Your task to perform on an android device: toggle data saver in the chrome app Image 0: 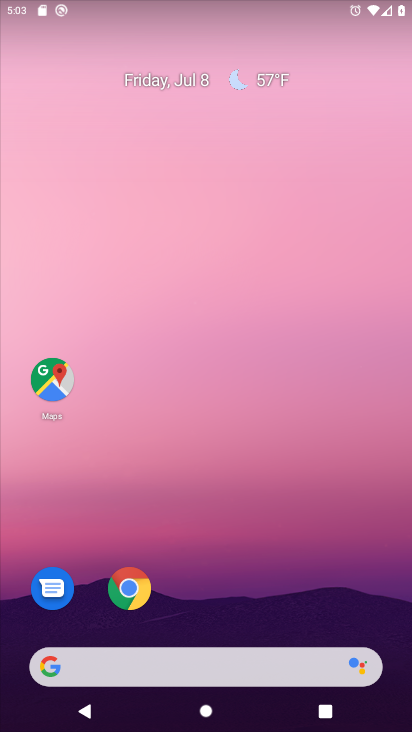
Step 0: drag from (166, 341) to (146, 186)
Your task to perform on an android device: toggle data saver in the chrome app Image 1: 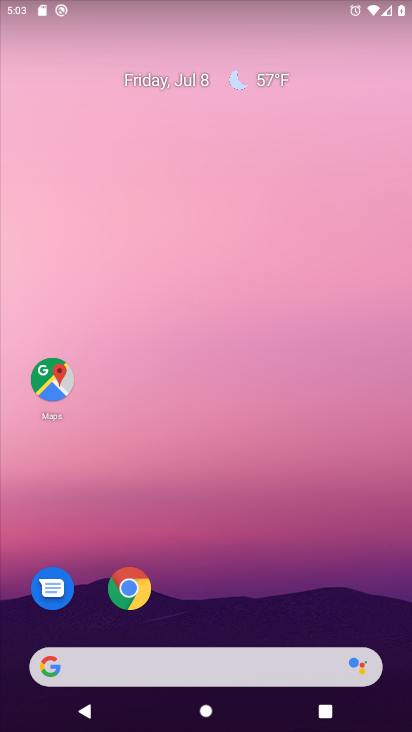
Step 1: drag from (253, 697) to (225, 87)
Your task to perform on an android device: toggle data saver in the chrome app Image 2: 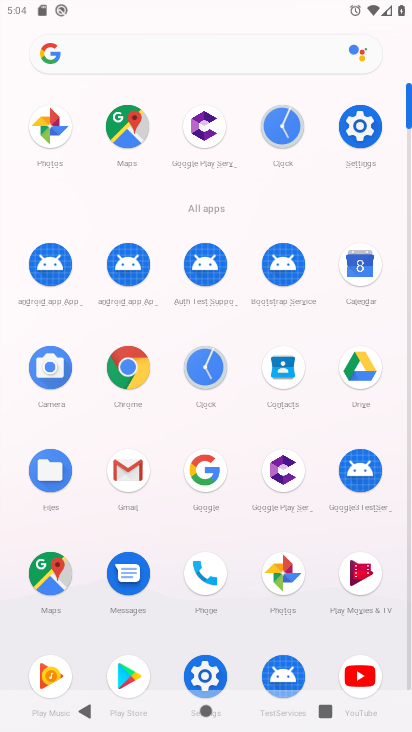
Step 2: click (121, 355)
Your task to perform on an android device: toggle data saver in the chrome app Image 3: 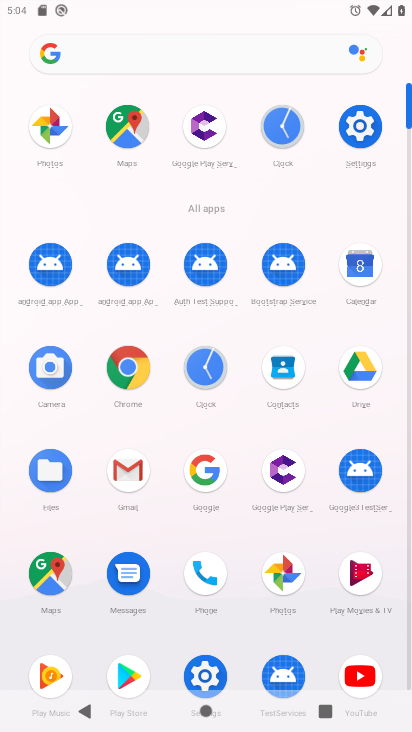
Step 3: click (136, 364)
Your task to perform on an android device: toggle data saver in the chrome app Image 4: 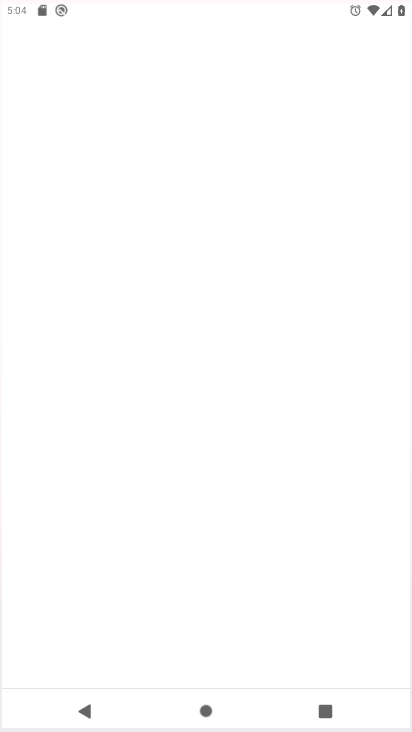
Step 4: click (135, 362)
Your task to perform on an android device: toggle data saver in the chrome app Image 5: 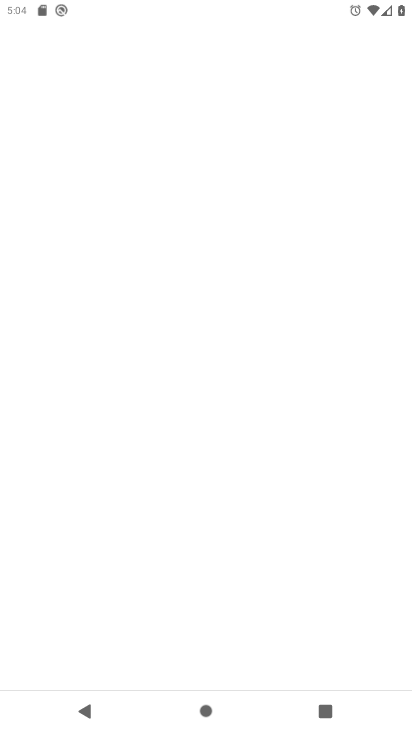
Step 5: click (138, 361)
Your task to perform on an android device: toggle data saver in the chrome app Image 6: 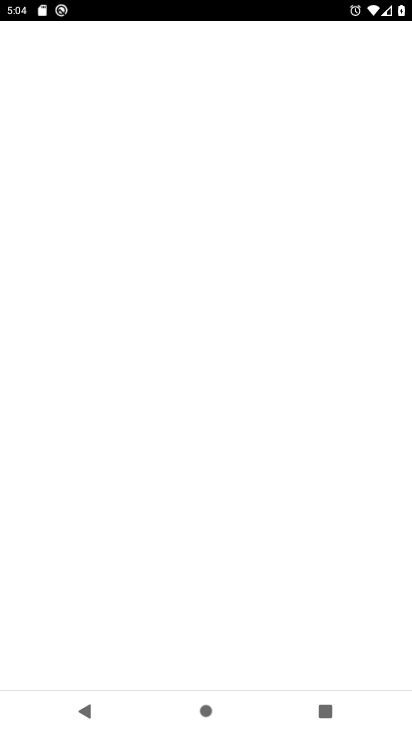
Step 6: click (138, 361)
Your task to perform on an android device: toggle data saver in the chrome app Image 7: 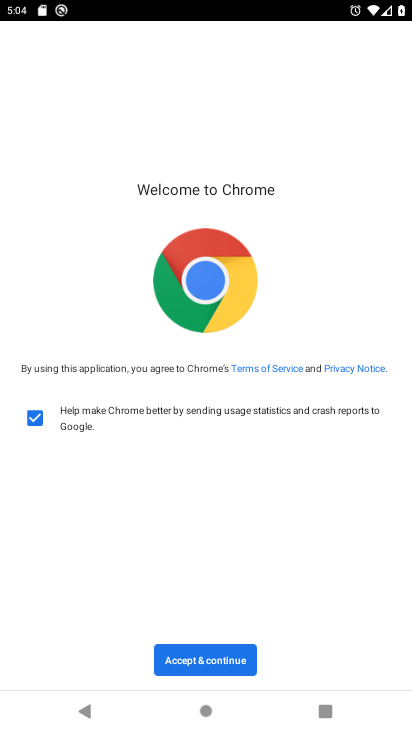
Step 7: click (202, 656)
Your task to perform on an android device: toggle data saver in the chrome app Image 8: 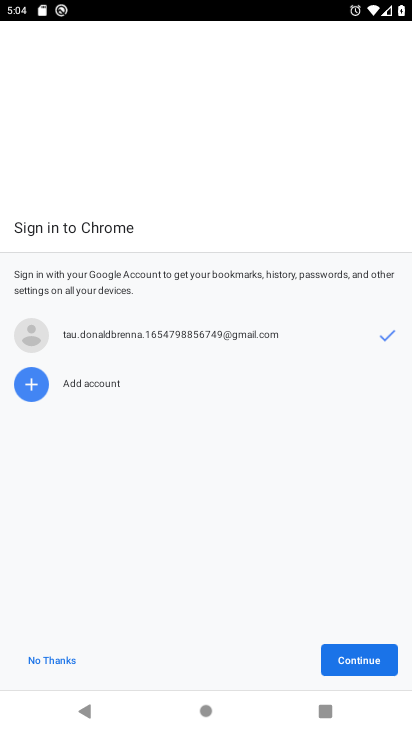
Step 8: click (202, 656)
Your task to perform on an android device: toggle data saver in the chrome app Image 9: 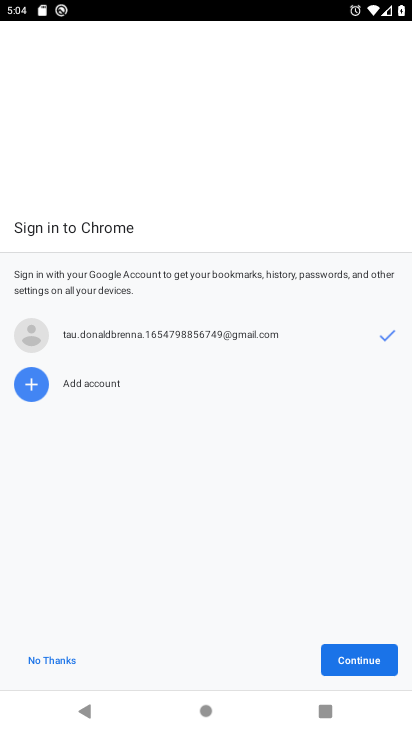
Step 9: click (364, 653)
Your task to perform on an android device: toggle data saver in the chrome app Image 10: 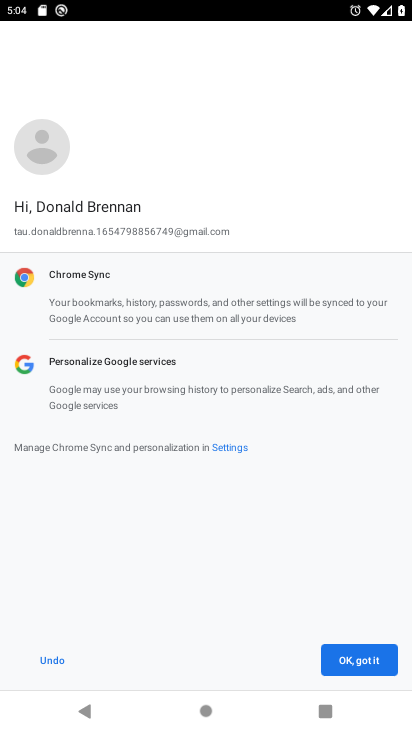
Step 10: click (368, 650)
Your task to perform on an android device: toggle data saver in the chrome app Image 11: 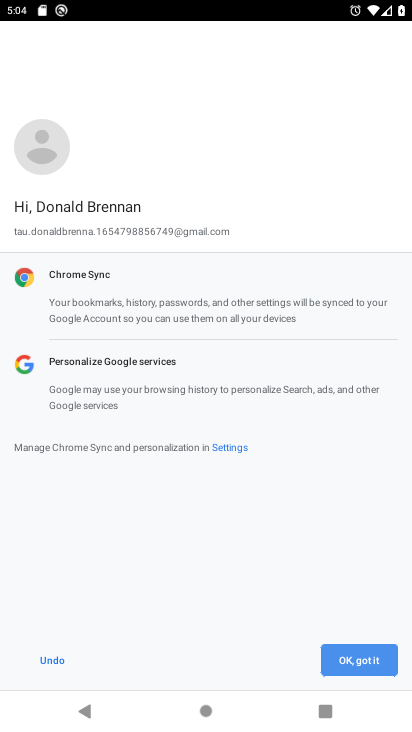
Step 11: click (367, 650)
Your task to perform on an android device: toggle data saver in the chrome app Image 12: 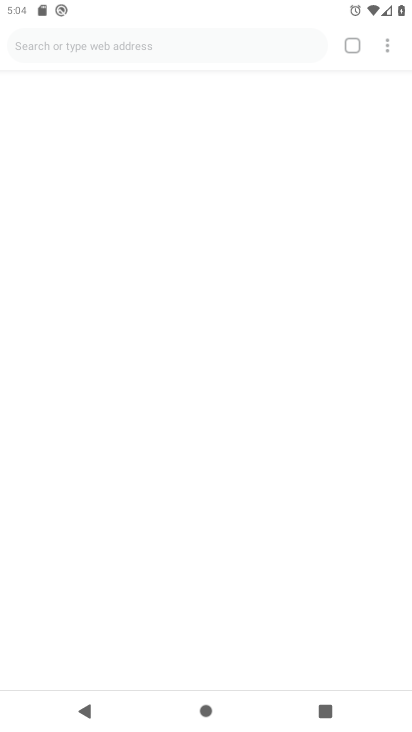
Step 12: click (368, 649)
Your task to perform on an android device: toggle data saver in the chrome app Image 13: 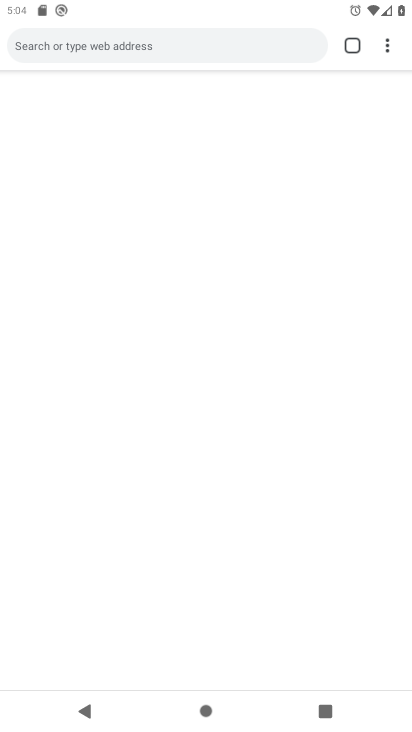
Step 13: click (368, 649)
Your task to perform on an android device: toggle data saver in the chrome app Image 14: 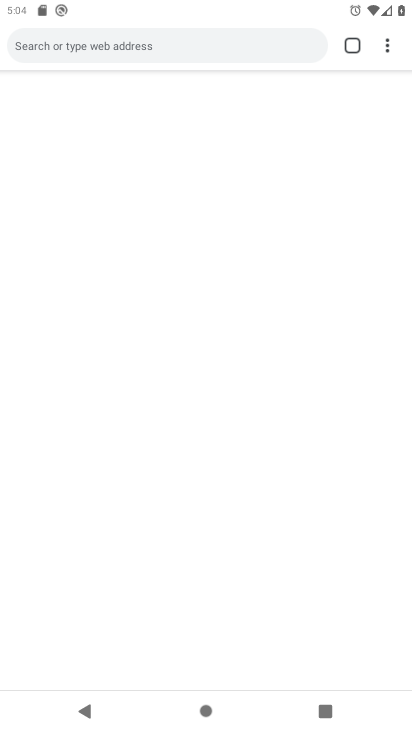
Step 14: click (368, 649)
Your task to perform on an android device: toggle data saver in the chrome app Image 15: 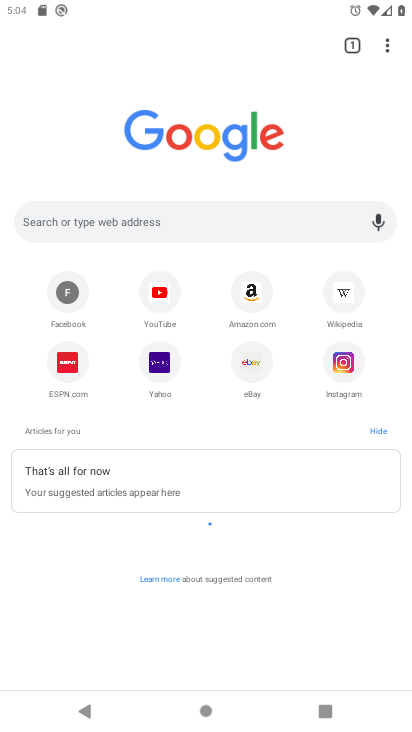
Step 15: click (390, 43)
Your task to perform on an android device: toggle data saver in the chrome app Image 16: 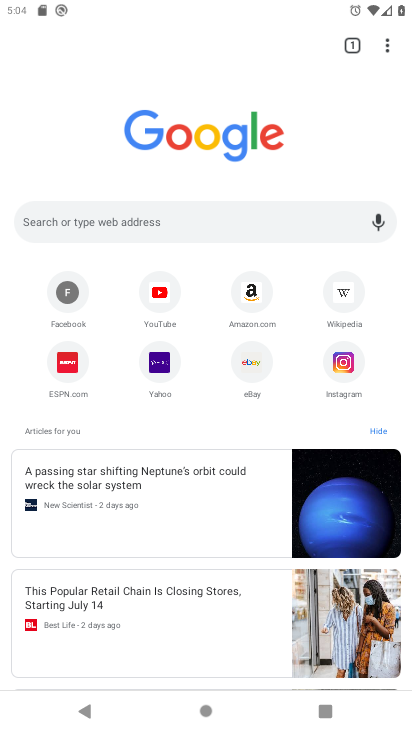
Step 16: click (389, 48)
Your task to perform on an android device: toggle data saver in the chrome app Image 17: 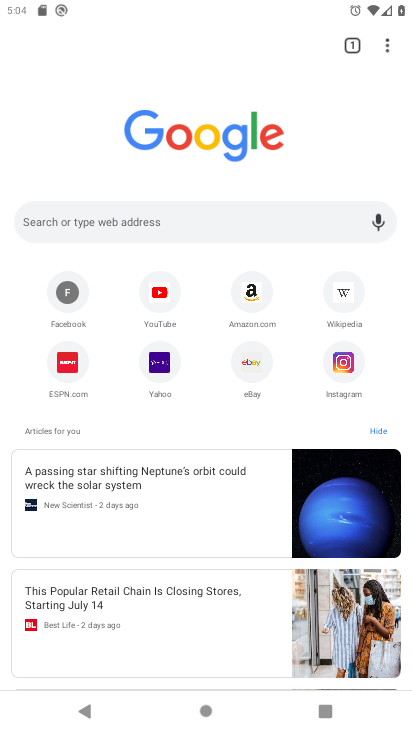
Step 17: click (389, 48)
Your task to perform on an android device: toggle data saver in the chrome app Image 18: 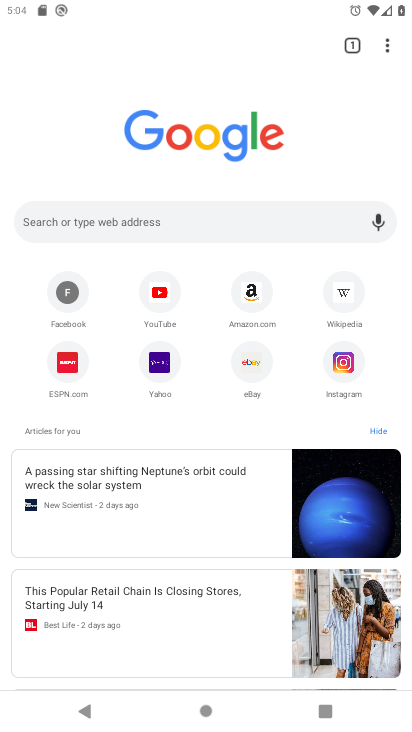
Step 18: click (389, 48)
Your task to perform on an android device: toggle data saver in the chrome app Image 19: 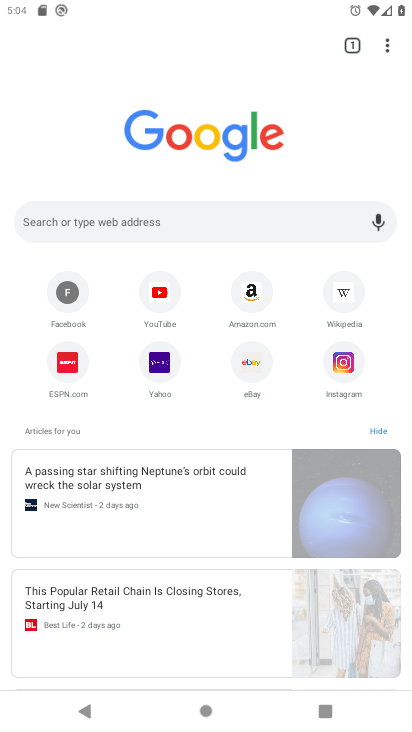
Step 19: click (389, 44)
Your task to perform on an android device: toggle data saver in the chrome app Image 20: 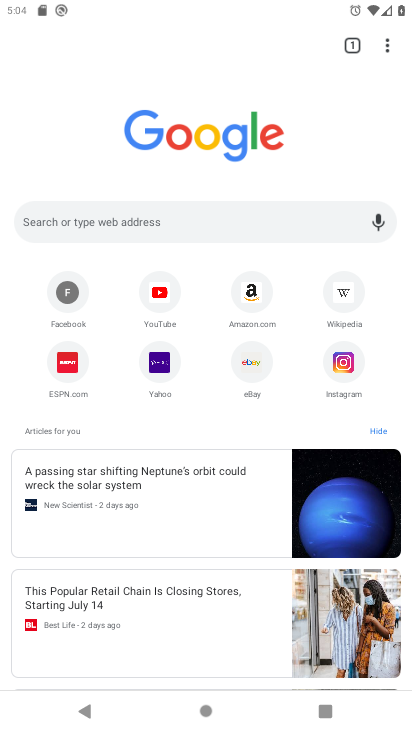
Step 20: click (389, 44)
Your task to perform on an android device: toggle data saver in the chrome app Image 21: 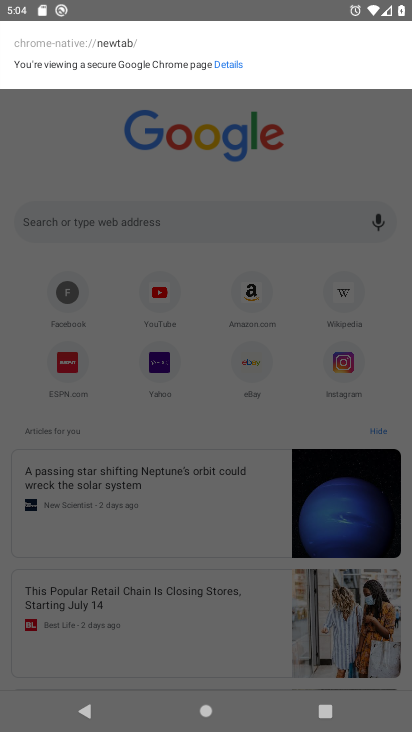
Step 21: drag from (389, 44) to (282, 589)
Your task to perform on an android device: toggle data saver in the chrome app Image 22: 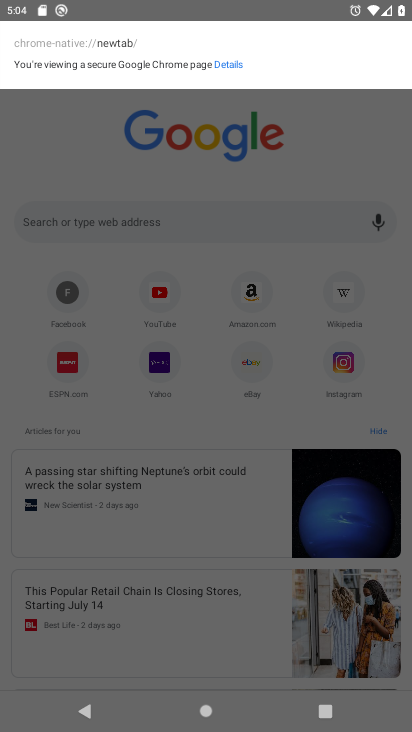
Step 22: click (347, 131)
Your task to perform on an android device: toggle data saver in the chrome app Image 23: 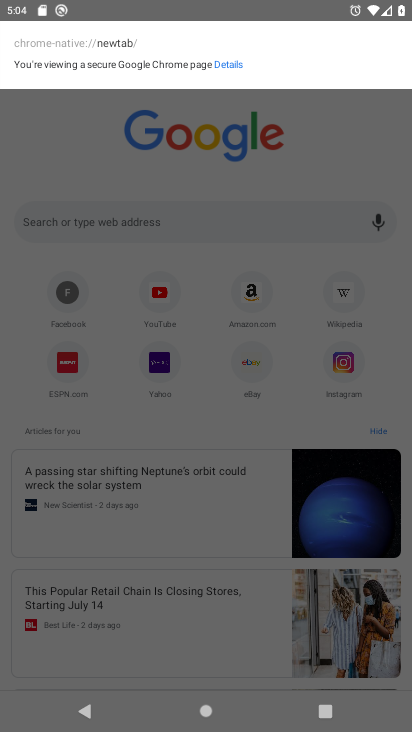
Step 23: click (347, 131)
Your task to perform on an android device: toggle data saver in the chrome app Image 24: 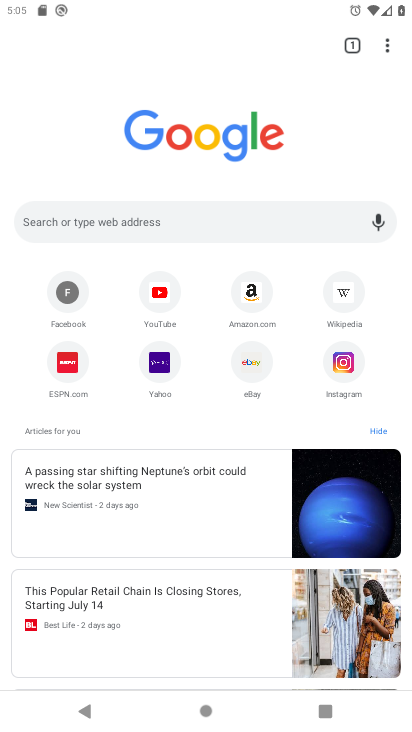
Step 24: drag from (384, 50) to (217, 378)
Your task to perform on an android device: toggle data saver in the chrome app Image 25: 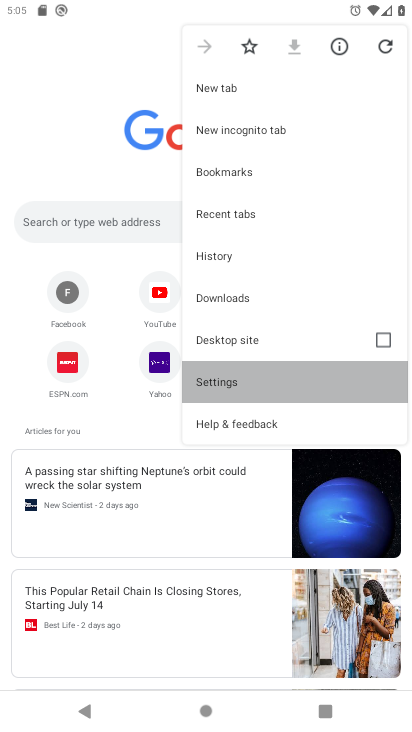
Step 25: click (217, 378)
Your task to perform on an android device: toggle data saver in the chrome app Image 26: 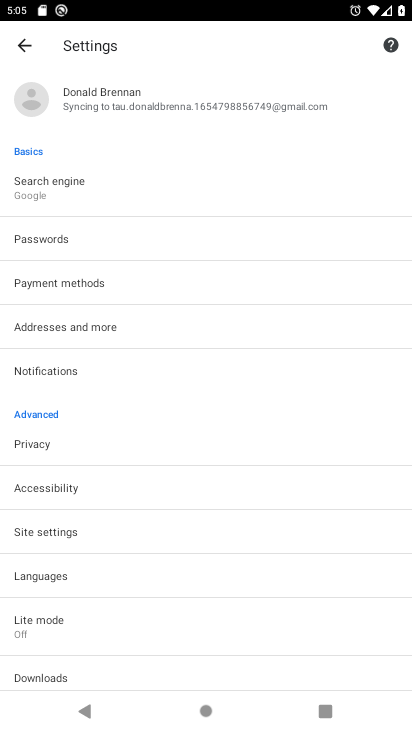
Step 26: drag from (80, 622) to (123, 97)
Your task to perform on an android device: toggle data saver in the chrome app Image 27: 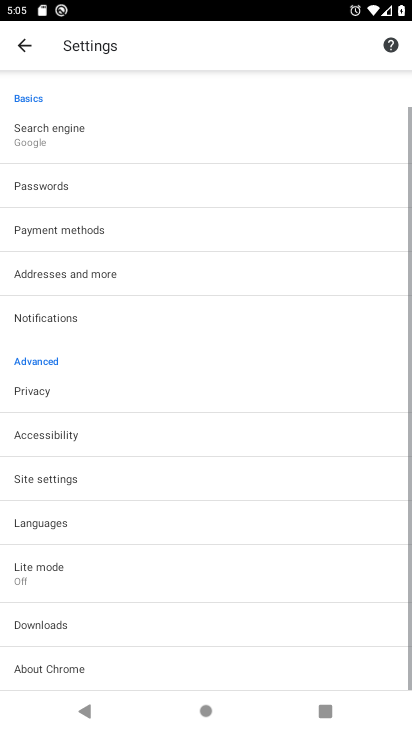
Step 27: drag from (102, 372) to (94, 218)
Your task to perform on an android device: toggle data saver in the chrome app Image 28: 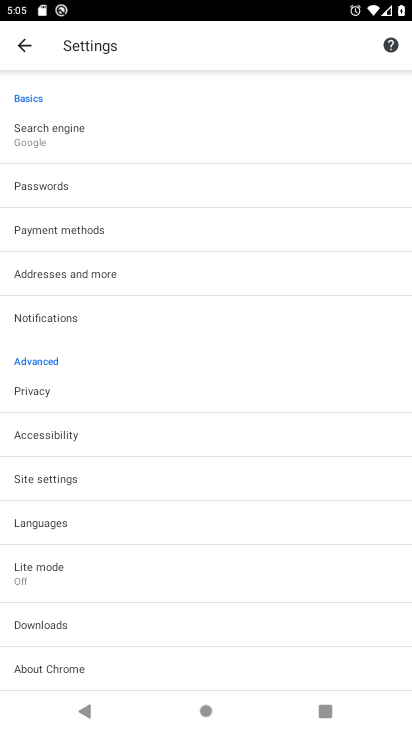
Step 28: click (35, 564)
Your task to perform on an android device: toggle data saver in the chrome app Image 29: 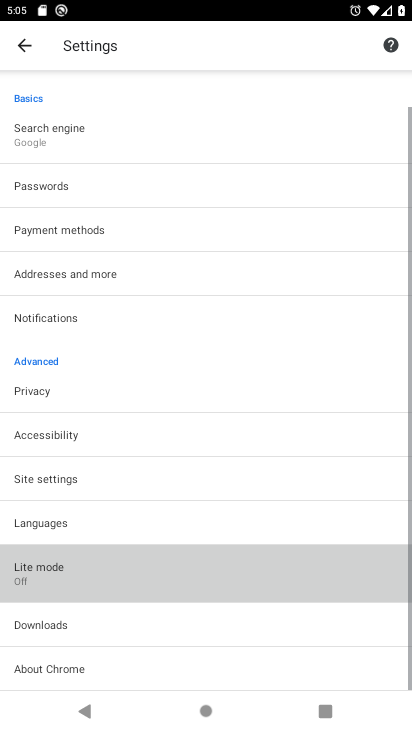
Step 29: click (35, 564)
Your task to perform on an android device: toggle data saver in the chrome app Image 30: 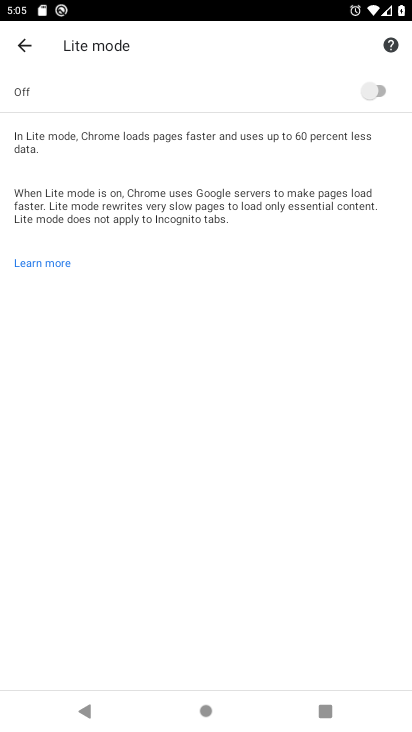
Step 30: task complete